Your task to perform on an android device: open the mobile data screen to see how much data has been used Image 0: 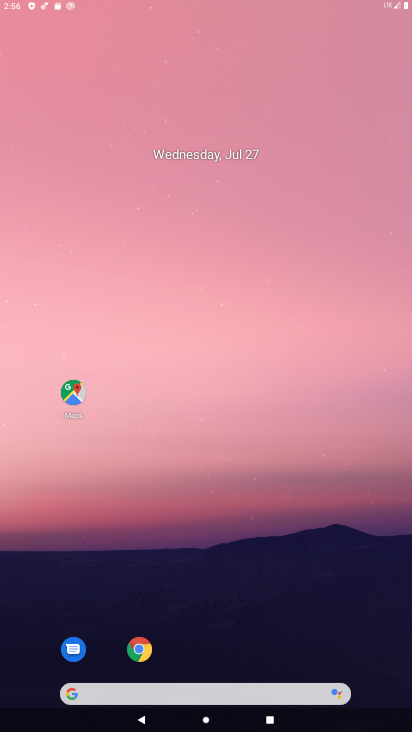
Step 0: press home button
Your task to perform on an android device: open the mobile data screen to see how much data has been used Image 1: 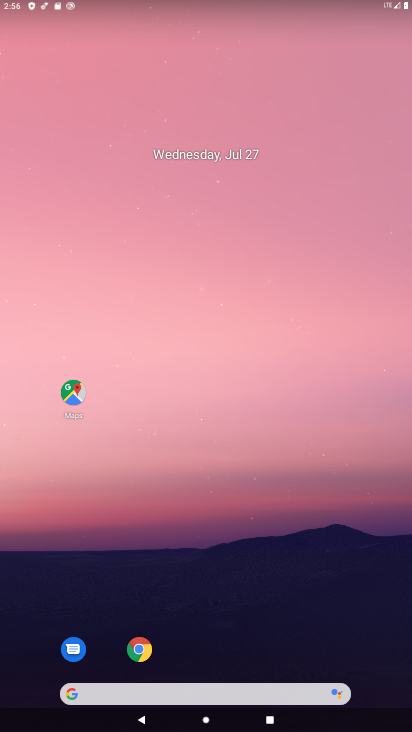
Step 1: drag from (269, 551) to (248, 56)
Your task to perform on an android device: open the mobile data screen to see how much data has been used Image 2: 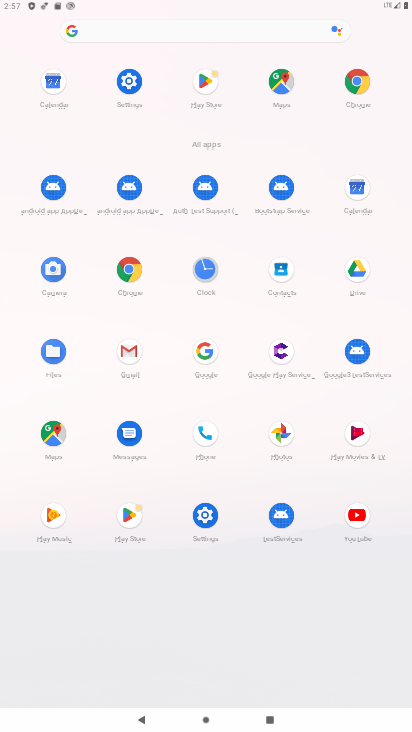
Step 2: drag from (299, 0) to (273, 382)
Your task to perform on an android device: open the mobile data screen to see how much data has been used Image 3: 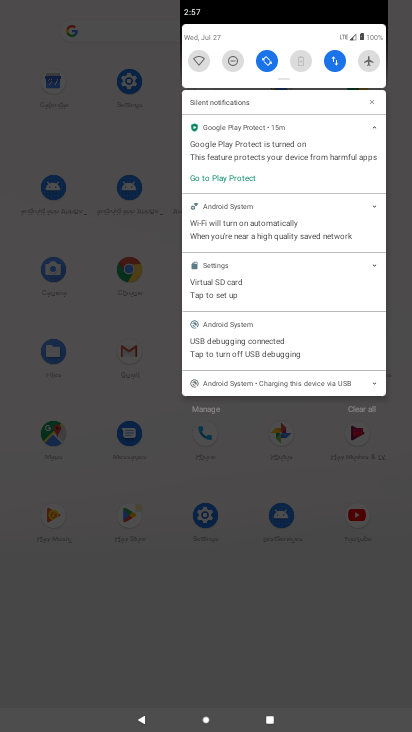
Step 3: click (335, 57)
Your task to perform on an android device: open the mobile data screen to see how much data has been used Image 4: 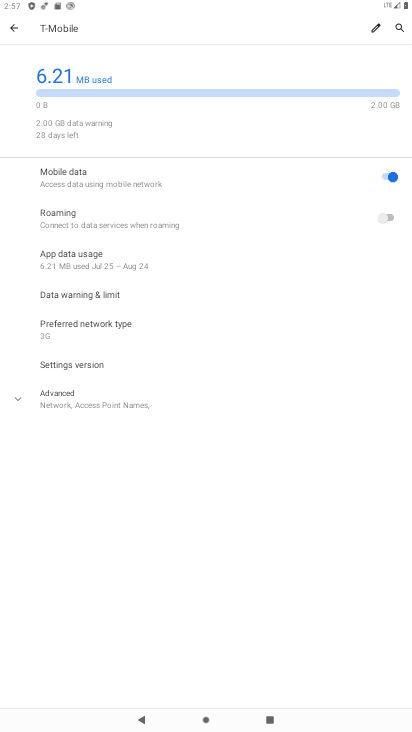
Step 4: task complete